Your task to perform on an android device: Open maps Image 0: 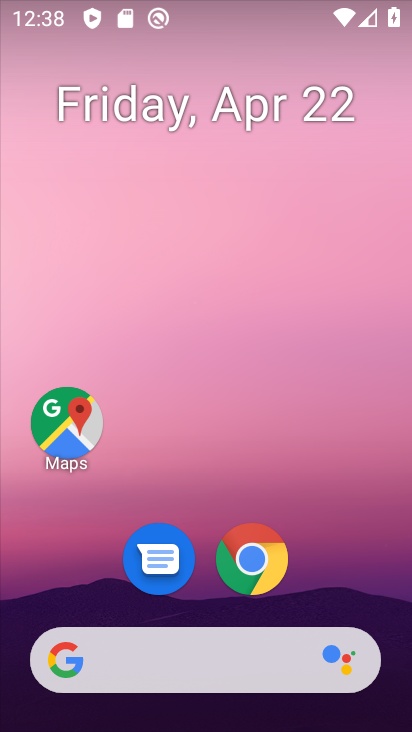
Step 0: drag from (354, 525) to (259, 16)
Your task to perform on an android device: Open maps Image 1: 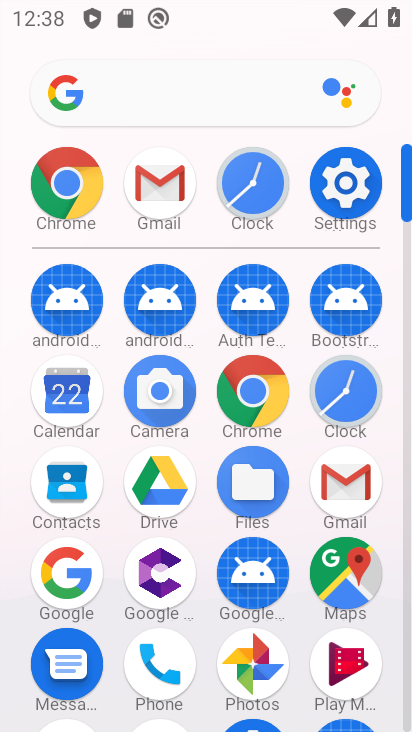
Step 1: click (359, 548)
Your task to perform on an android device: Open maps Image 2: 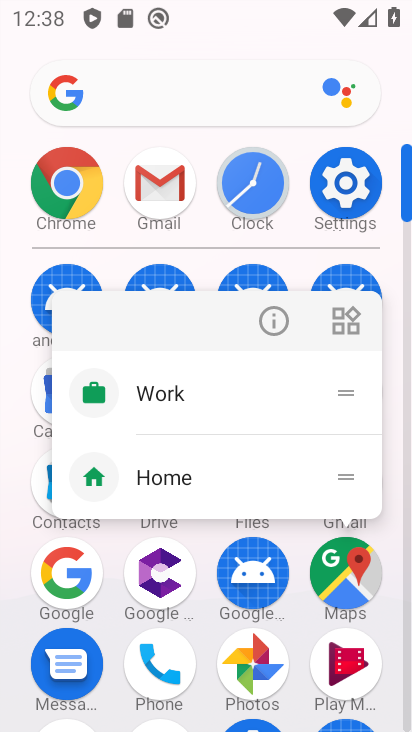
Step 2: click (355, 550)
Your task to perform on an android device: Open maps Image 3: 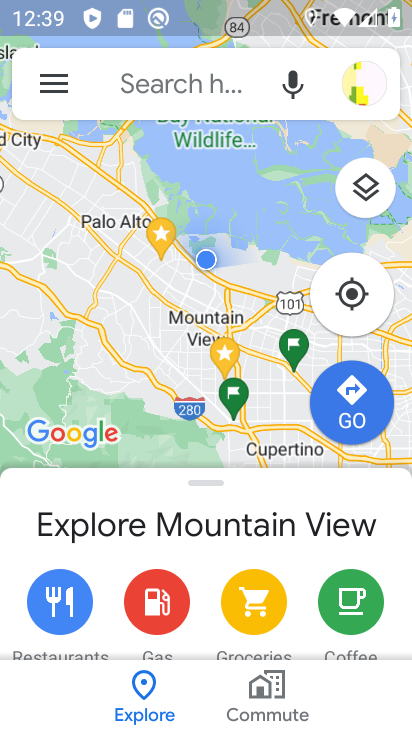
Step 3: task complete